Your task to perform on an android device: turn pop-ups off in chrome Image 0: 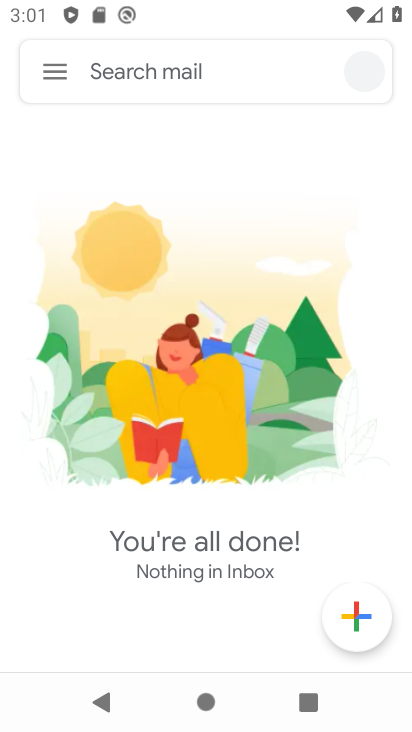
Step 0: press home button
Your task to perform on an android device: turn pop-ups off in chrome Image 1: 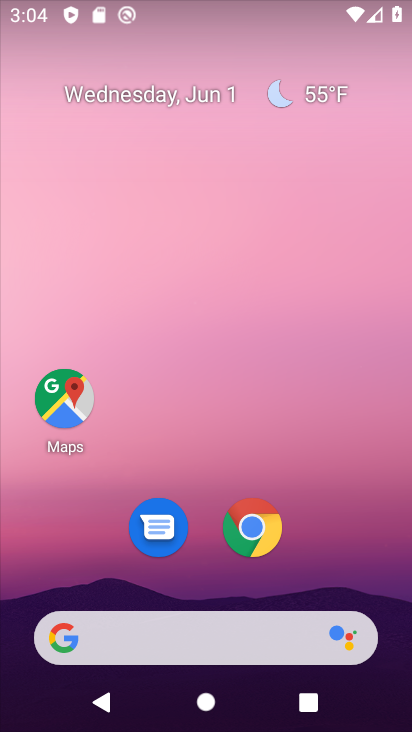
Step 1: click (255, 535)
Your task to perform on an android device: turn pop-ups off in chrome Image 2: 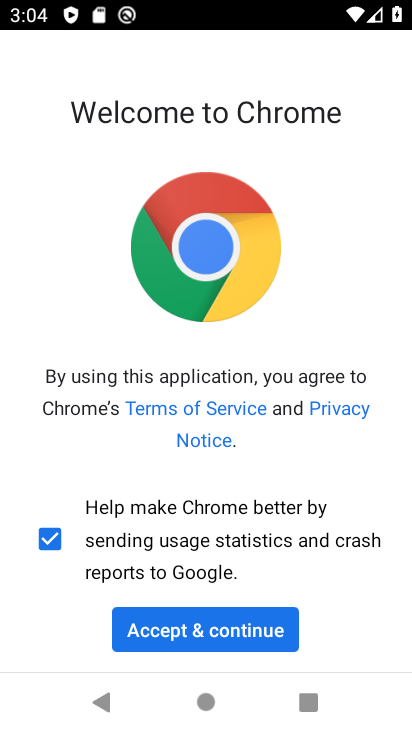
Step 2: click (206, 627)
Your task to perform on an android device: turn pop-ups off in chrome Image 3: 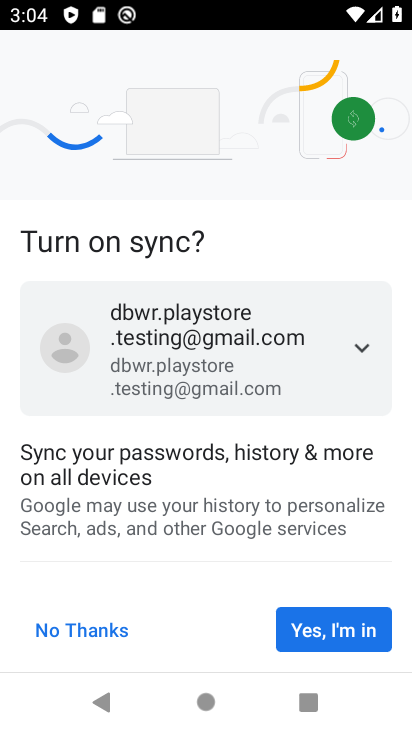
Step 3: click (284, 618)
Your task to perform on an android device: turn pop-ups off in chrome Image 4: 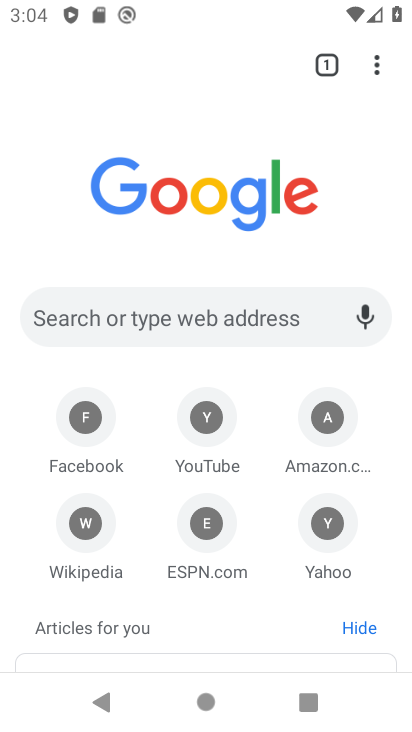
Step 4: drag from (373, 51) to (160, 550)
Your task to perform on an android device: turn pop-ups off in chrome Image 5: 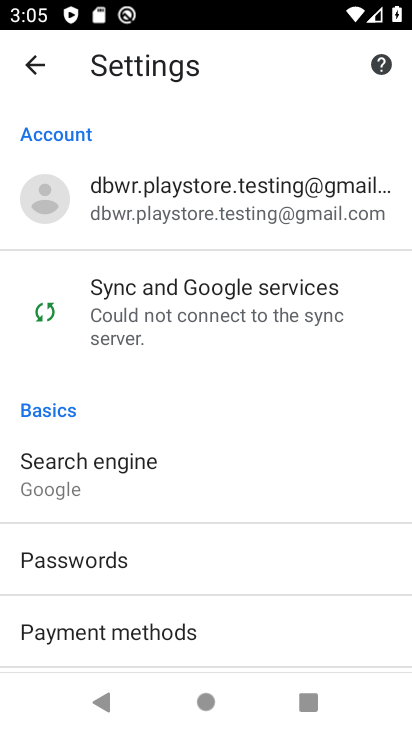
Step 5: drag from (233, 576) to (302, 444)
Your task to perform on an android device: turn pop-ups off in chrome Image 6: 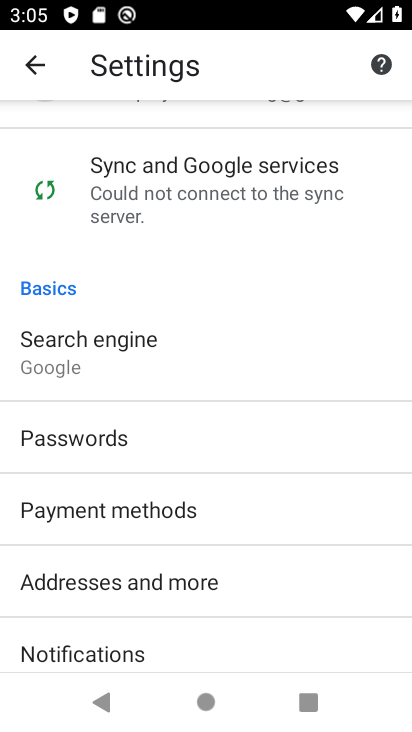
Step 6: drag from (252, 640) to (292, 370)
Your task to perform on an android device: turn pop-ups off in chrome Image 7: 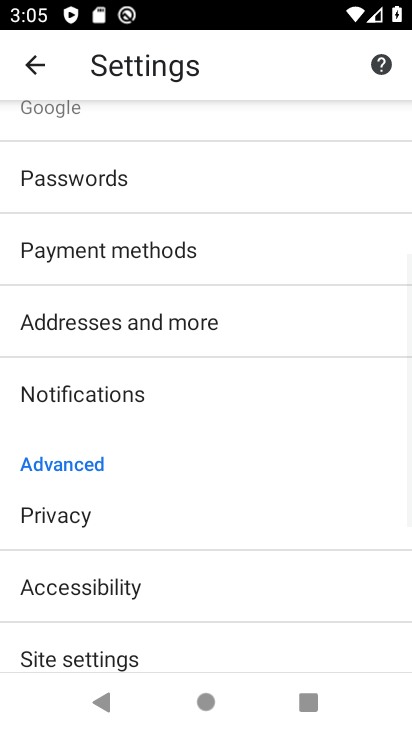
Step 7: drag from (252, 588) to (260, 407)
Your task to perform on an android device: turn pop-ups off in chrome Image 8: 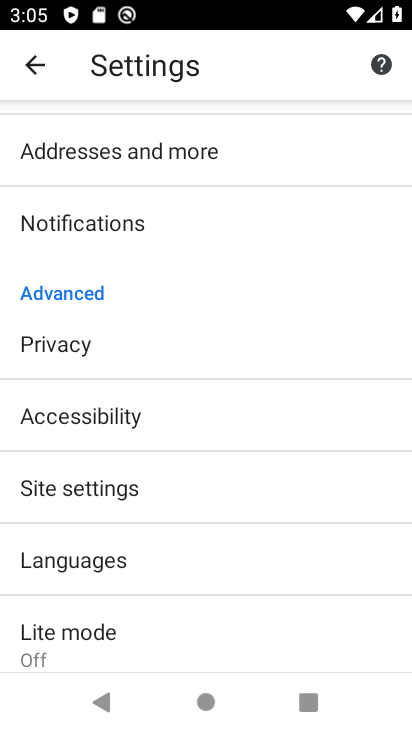
Step 8: click (184, 479)
Your task to perform on an android device: turn pop-ups off in chrome Image 9: 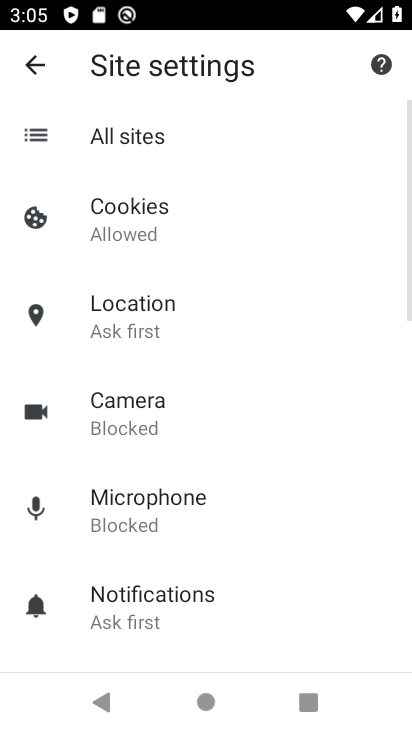
Step 9: drag from (268, 563) to (307, 401)
Your task to perform on an android device: turn pop-ups off in chrome Image 10: 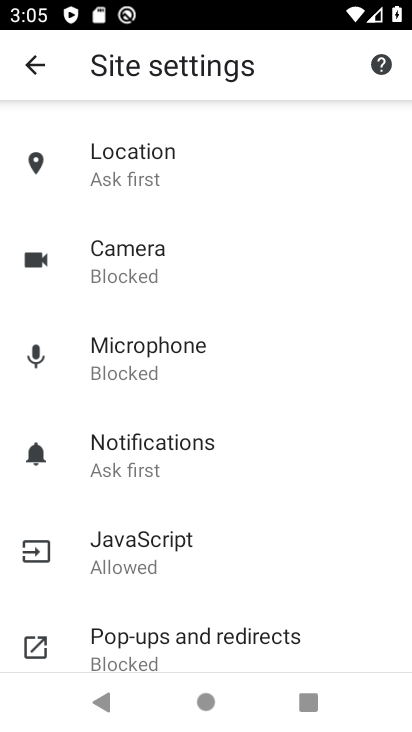
Step 10: click (225, 629)
Your task to perform on an android device: turn pop-ups off in chrome Image 11: 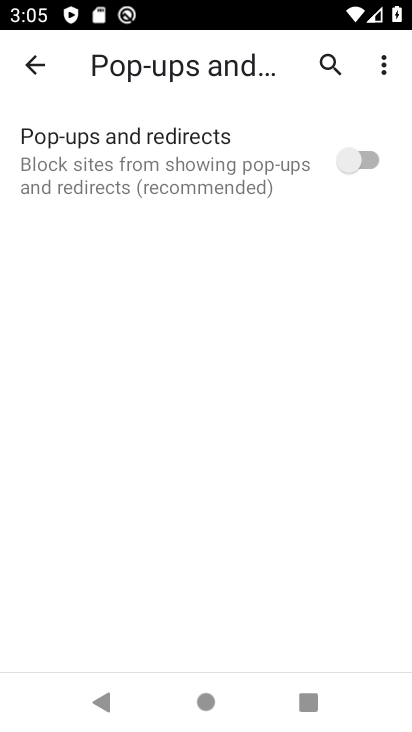
Step 11: click (294, 175)
Your task to perform on an android device: turn pop-ups off in chrome Image 12: 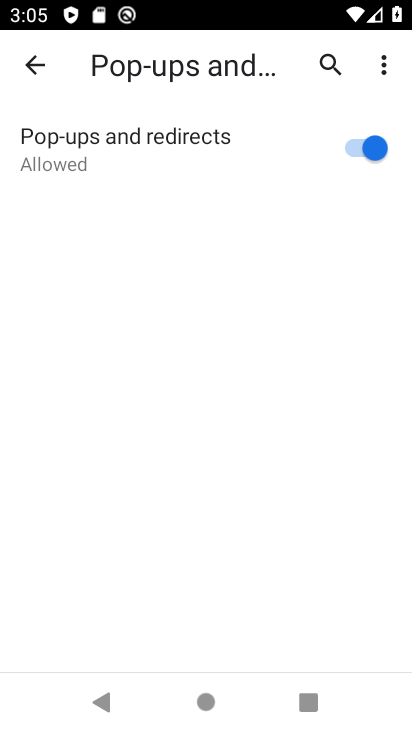
Step 12: click (294, 176)
Your task to perform on an android device: turn pop-ups off in chrome Image 13: 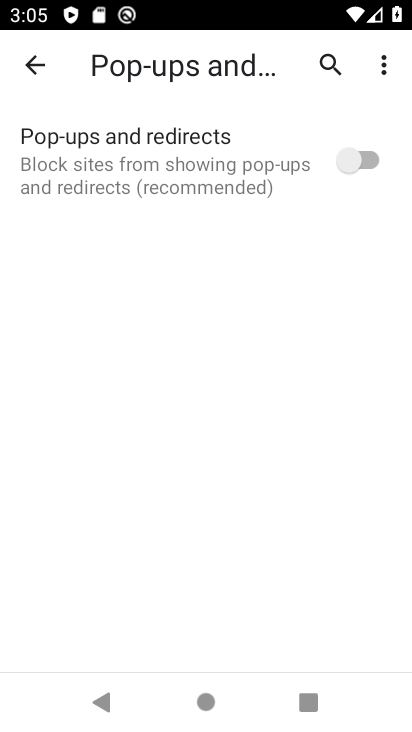
Step 13: task complete